Your task to perform on an android device: Open battery settings Image 0: 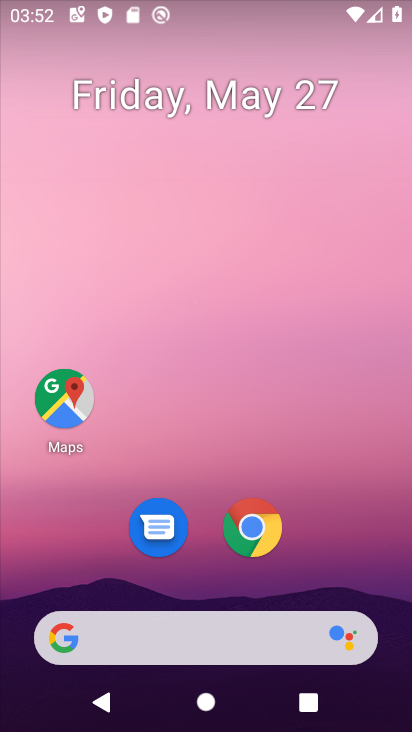
Step 0: drag from (353, 518) to (348, 205)
Your task to perform on an android device: Open battery settings Image 1: 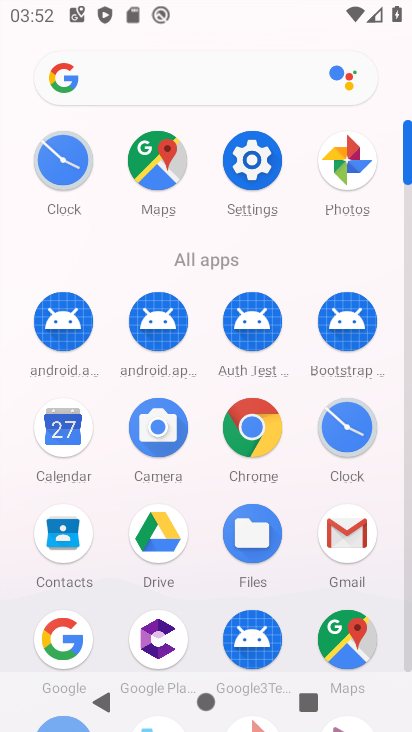
Step 1: click (234, 199)
Your task to perform on an android device: Open battery settings Image 2: 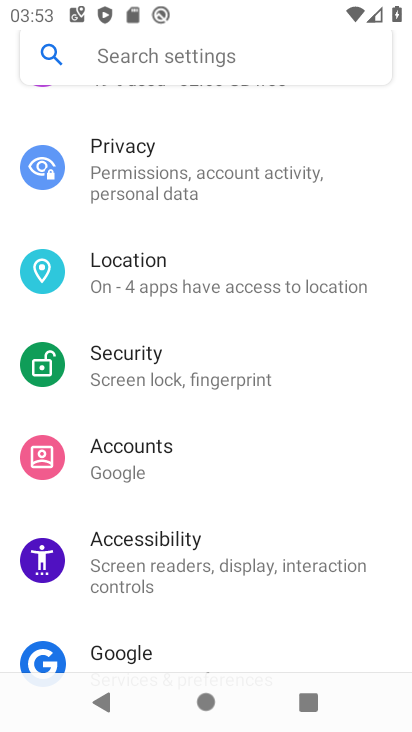
Step 2: drag from (234, 199) to (269, 563)
Your task to perform on an android device: Open battery settings Image 3: 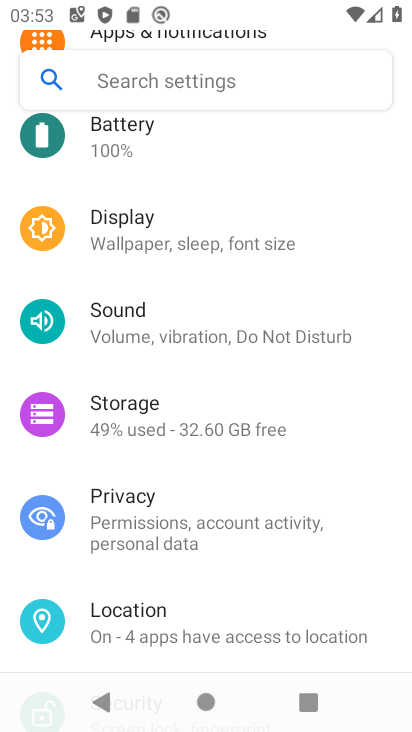
Step 3: drag from (248, 349) to (254, 458)
Your task to perform on an android device: Open battery settings Image 4: 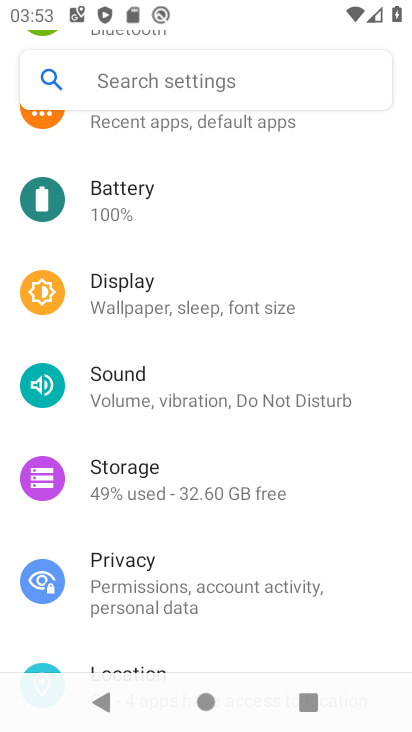
Step 4: drag from (246, 152) to (244, 450)
Your task to perform on an android device: Open battery settings Image 5: 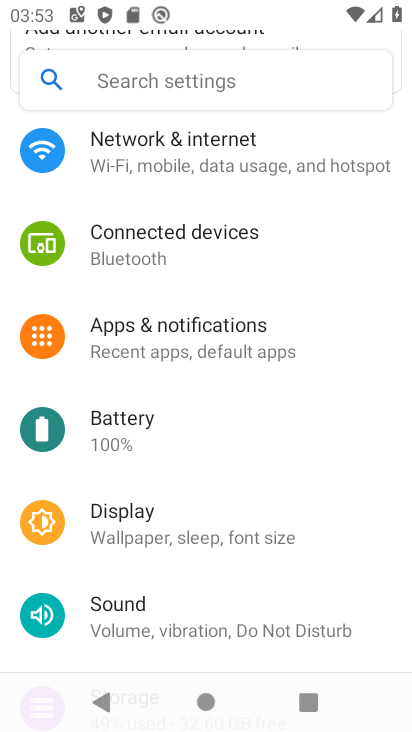
Step 5: click (200, 430)
Your task to perform on an android device: Open battery settings Image 6: 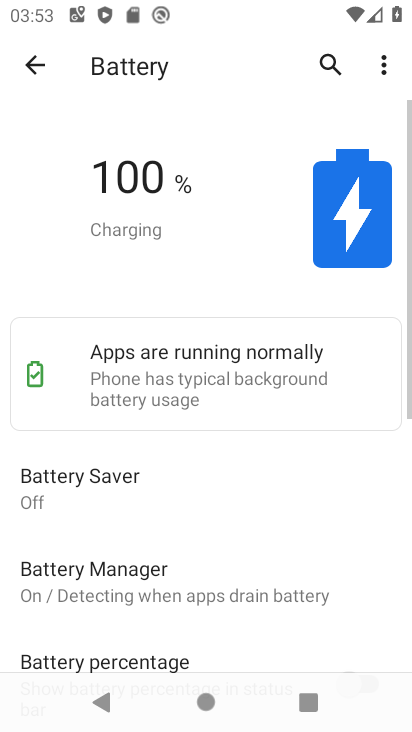
Step 6: task complete